Your task to perform on an android device: check battery use Image 0: 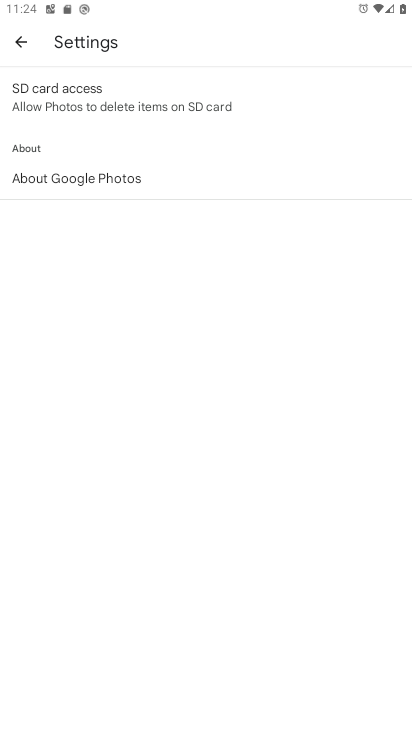
Step 0: press home button
Your task to perform on an android device: check battery use Image 1: 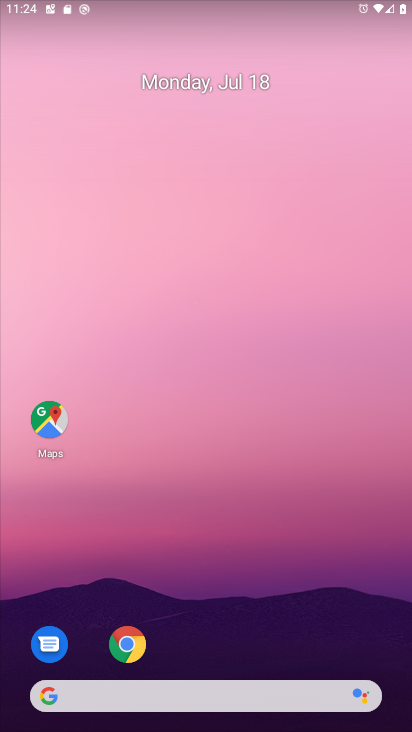
Step 1: drag from (237, 633) to (223, 79)
Your task to perform on an android device: check battery use Image 2: 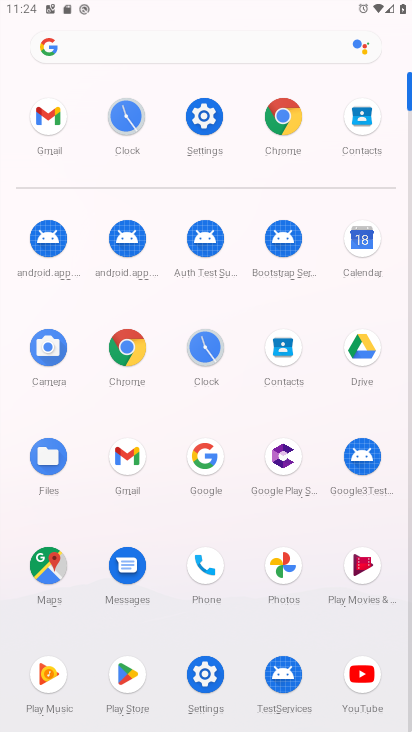
Step 2: click (203, 126)
Your task to perform on an android device: check battery use Image 3: 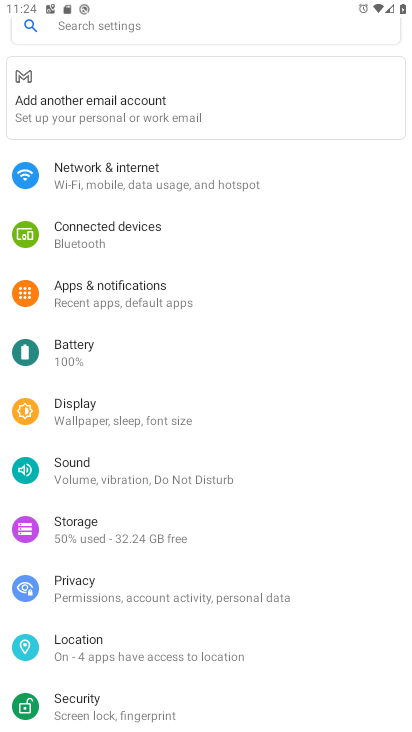
Step 3: click (126, 362)
Your task to perform on an android device: check battery use Image 4: 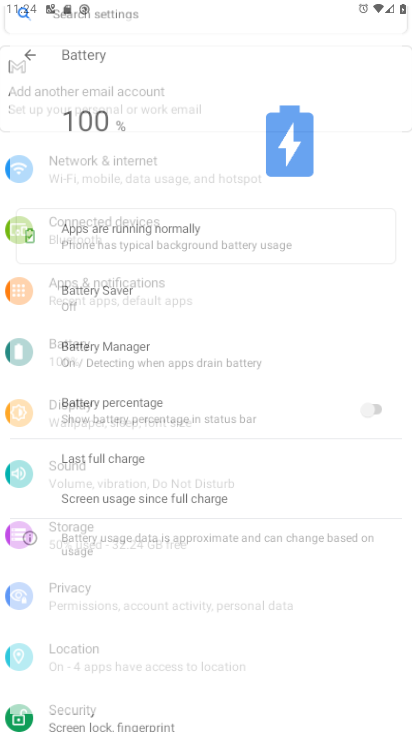
Step 4: task complete